Your task to perform on an android device: Go to location settings Image 0: 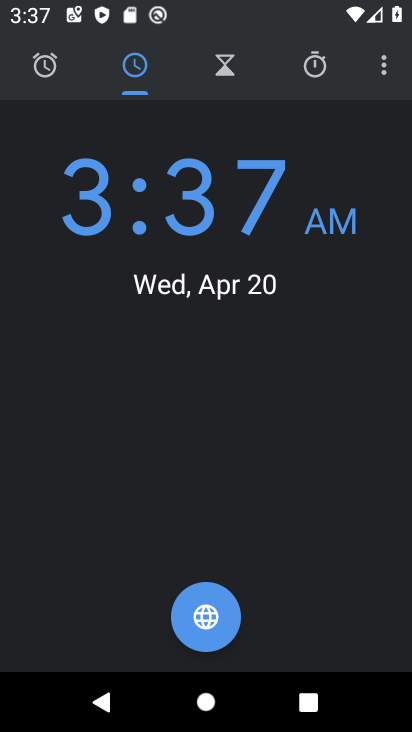
Step 0: press home button
Your task to perform on an android device: Go to location settings Image 1: 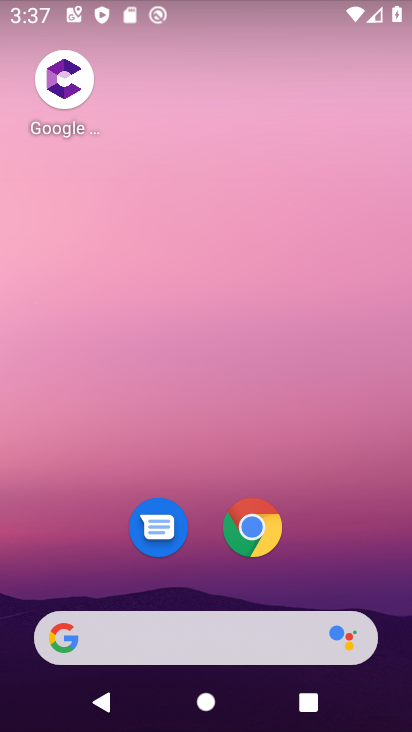
Step 1: drag from (306, 572) to (326, 166)
Your task to perform on an android device: Go to location settings Image 2: 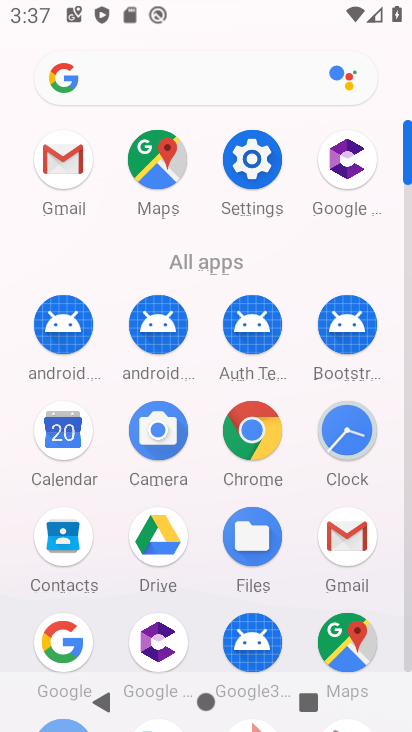
Step 2: click (258, 171)
Your task to perform on an android device: Go to location settings Image 3: 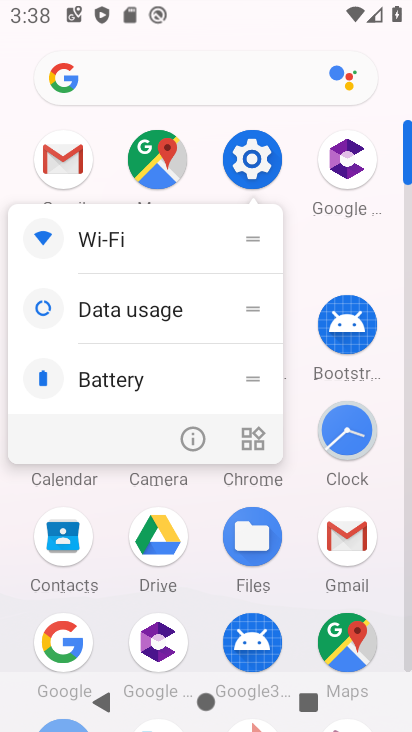
Step 3: click (249, 167)
Your task to perform on an android device: Go to location settings Image 4: 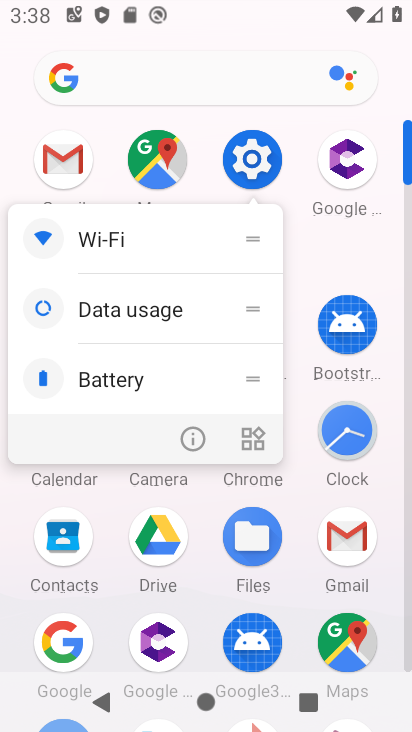
Step 4: click (248, 152)
Your task to perform on an android device: Go to location settings Image 5: 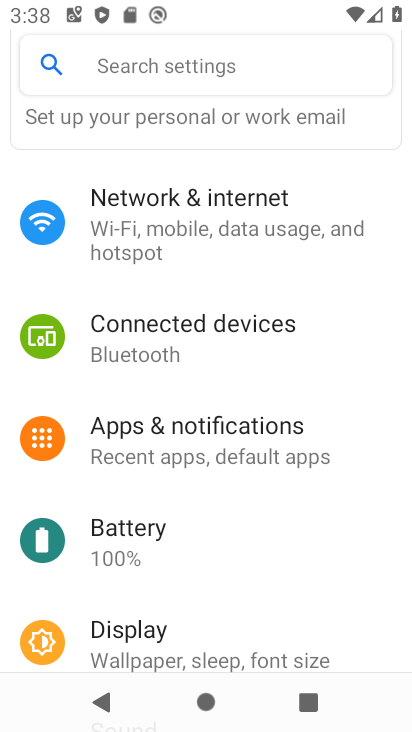
Step 5: drag from (200, 589) to (242, 219)
Your task to perform on an android device: Go to location settings Image 6: 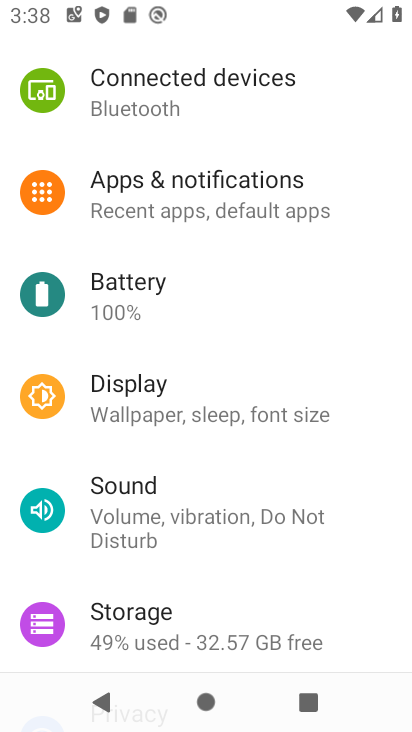
Step 6: drag from (221, 544) to (263, 273)
Your task to perform on an android device: Go to location settings Image 7: 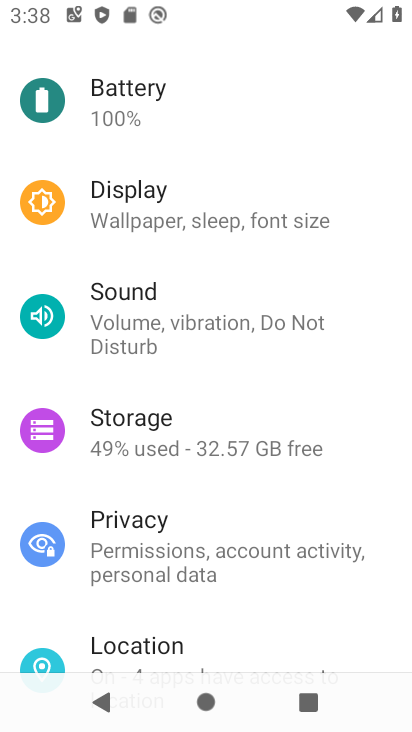
Step 7: drag from (230, 589) to (269, 292)
Your task to perform on an android device: Go to location settings Image 8: 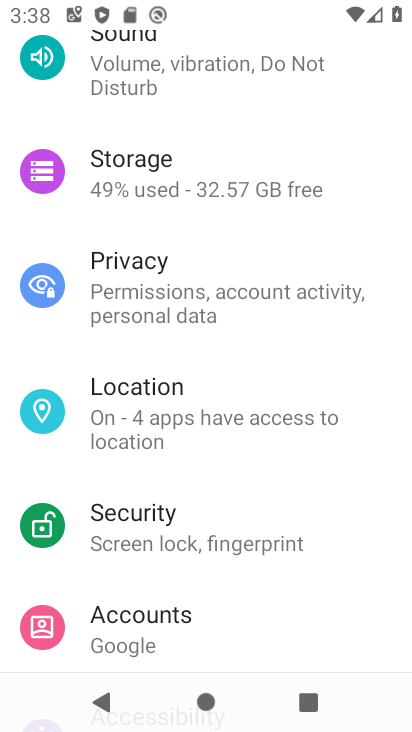
Step 8: click (227, 422)
Your task to perform on an android device: Go to location settings Image 9: 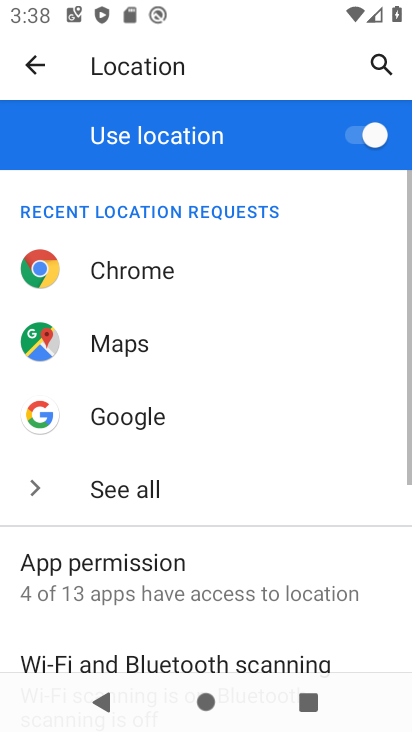
Step 9: task complete